Your task to perform on an android device: all mails in gmail Image 0: 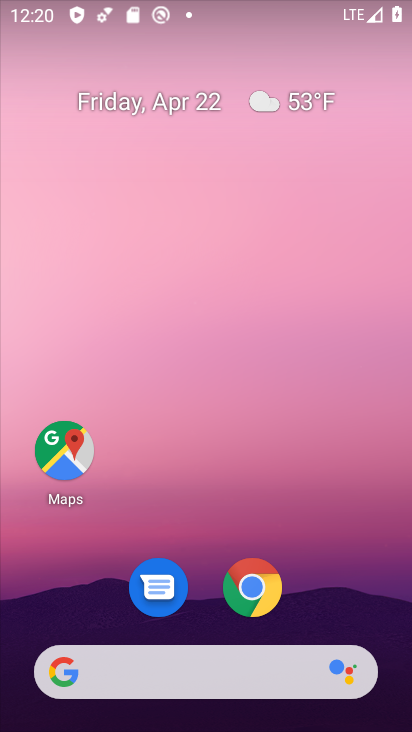
Step 0: drag from (196, 612) to (202, 275)
Your task to perform on an android device: all mails in gmail Image 1: 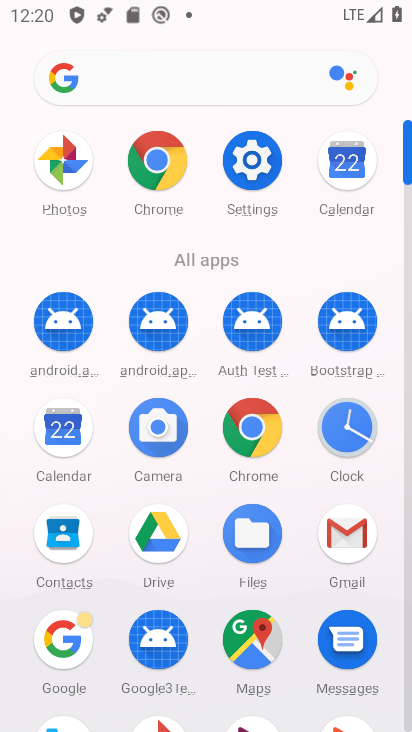
Step 1: click (352, 536)
Your task to perform on an android device: all mails in gmail Image 2: 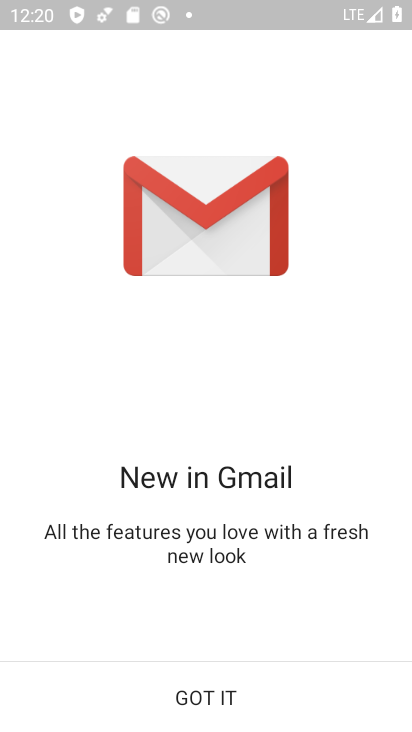
Step 2: click (214, 690)
Your task to perform on an android device: all mails in gmail Image 3: 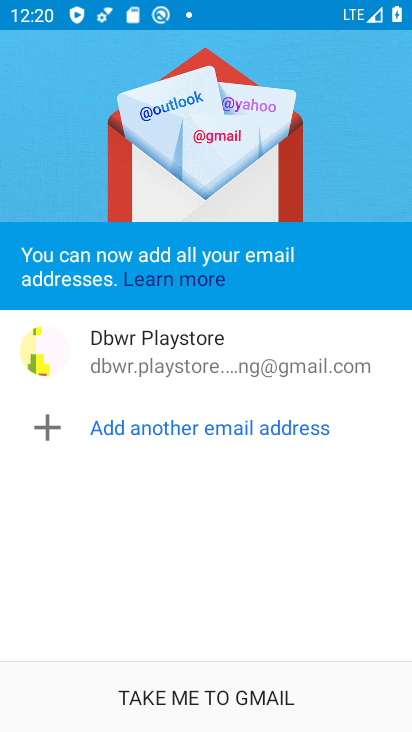
Step 3: click (213, 688)
Your task to perform on an android device: all mails in gmail Image 4: 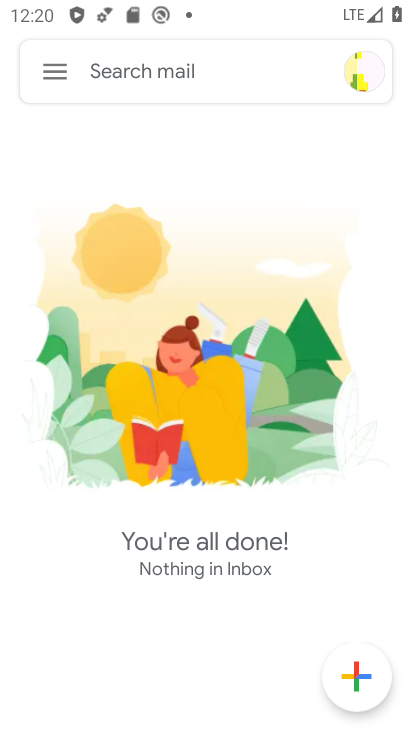
Step 4: click (47, 75)
Your task to perform on an android device: all mails in gmail Image 5: 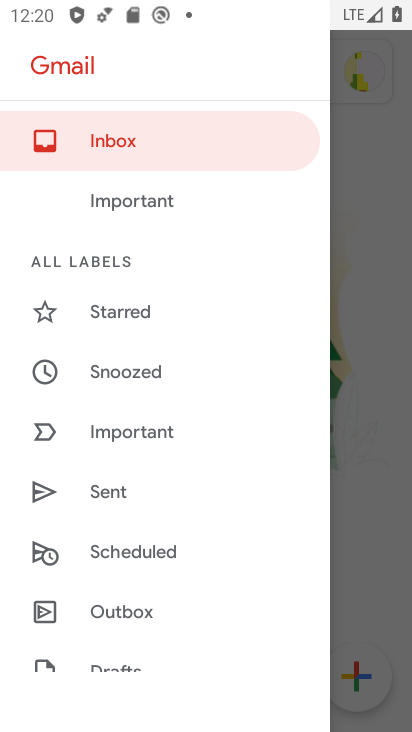
Step 5: drag from (110, 597) to (151, 231)
Your task to perform on an android device: all mails in gmail Image 6: 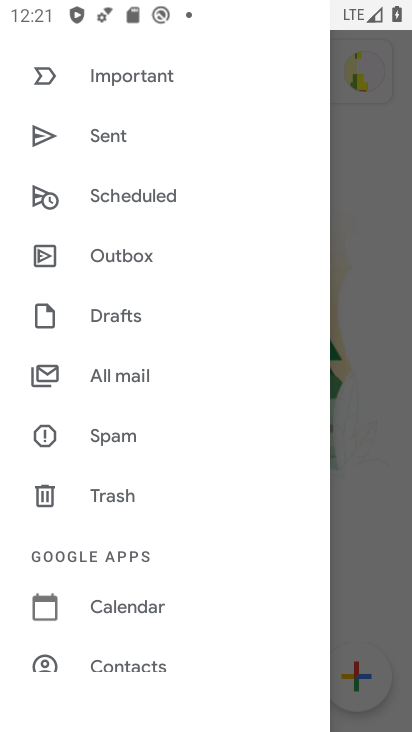
Step 6: click (119, 371)
Your task to perform on an android device: all mails in gmail Image 7: 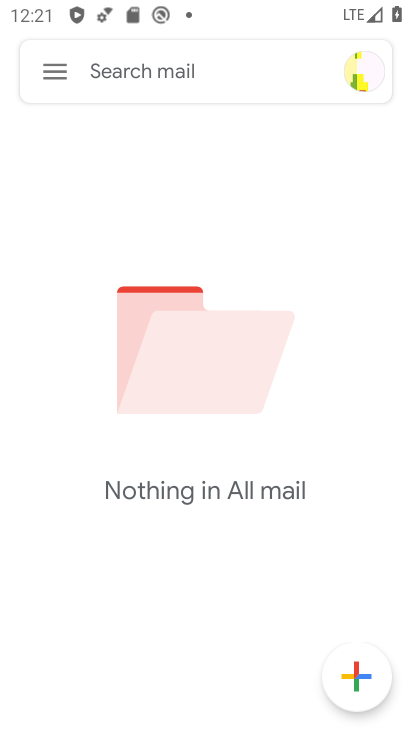
Step 7: task complete